Your task to perform on an android device: Open Youtube and go to "Your channel" Image 0: 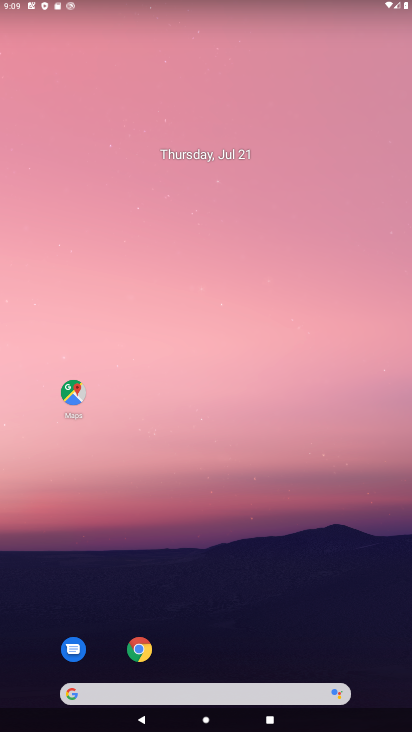
Step 0: drag from (251, 640) to (270, 290)
Your task to perform on an android device: Open Youtube and go to "Your channel" Image 1: 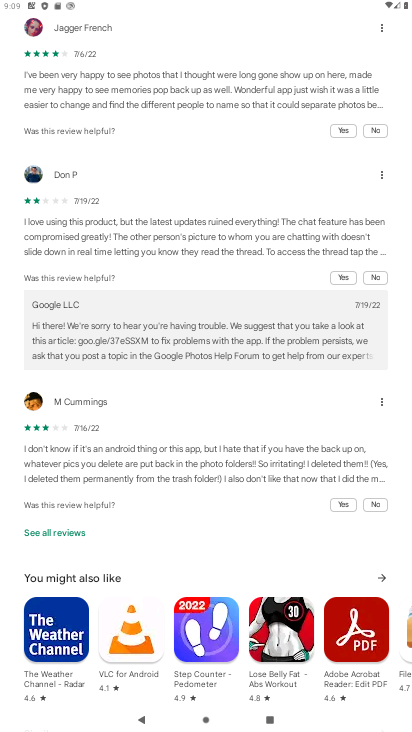
Step 1: press home button
Your task to perform on an android device: Open Youtube and go to "Your channel" Image 2: 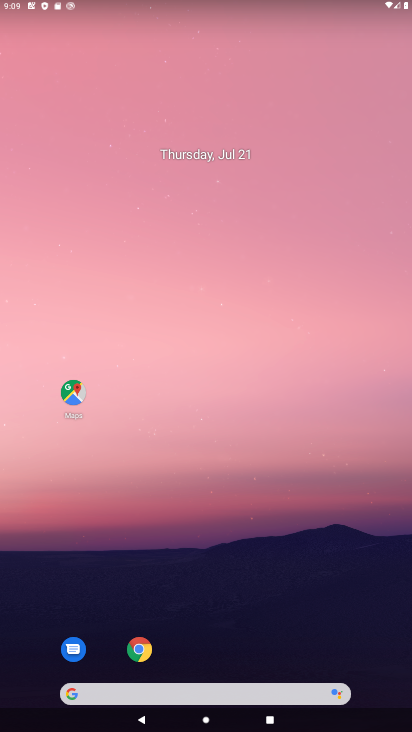
Step 2: drag from (237, 572) to (247, 241)
Your task to perform on an android device: Open Youtube and go to "Your channel" Image 3: 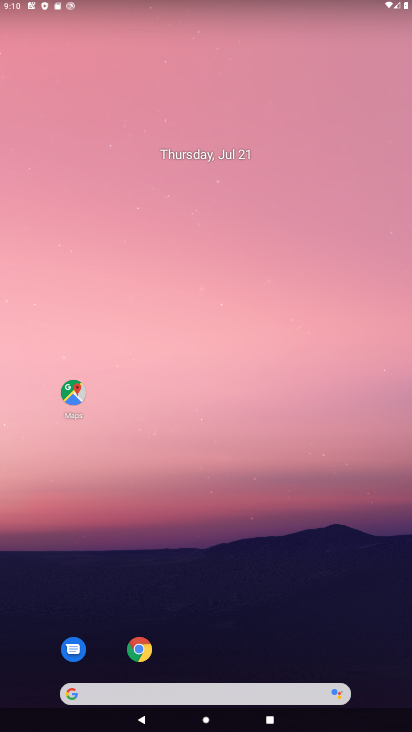
Step 3: drag from (220, 656) to (225, 284)
Your task to perform on an android device: Open Youtube and go to "Your channel" Image 4: 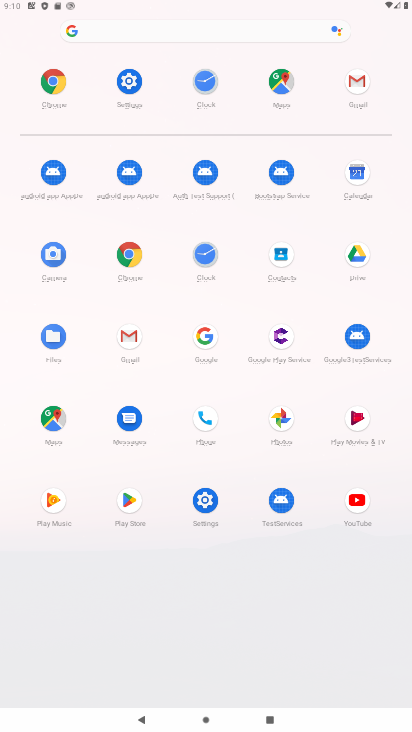
Step 4: click (349, 520)
Your task to perform on an android device: Open Youtube and go to "Your channel" Image 5: 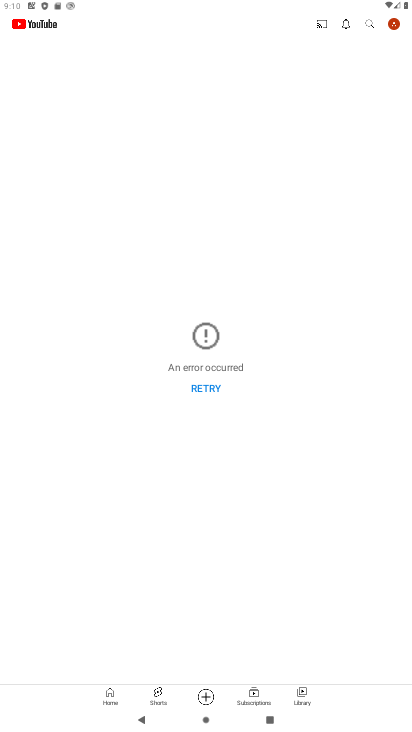
Step 5: click (196, 384)
Your task to perform on an android device: Open Youtube and go to "Your channel" Image 6: 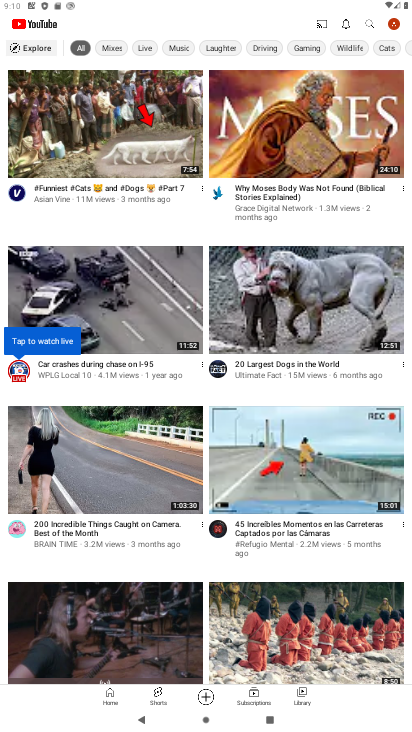
Step 6: click (395, 22)
Your task to perform on an android device: Open Youtube and go to "Your channel" Image 7: 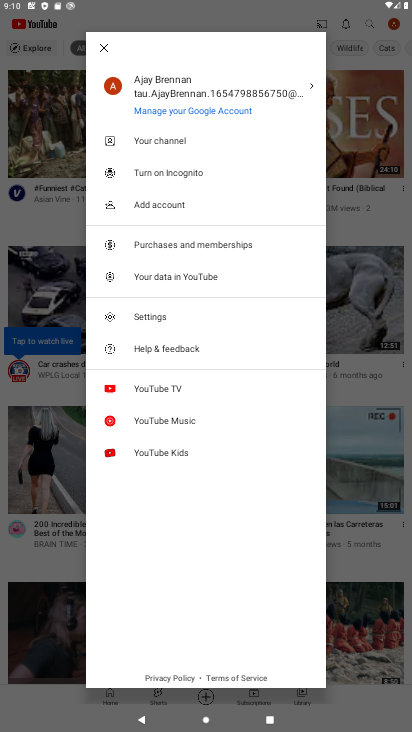
Step 7: click (160, 144)
Your task to perform on an android device: Open Youtube and go to "Your channel" Image 8: 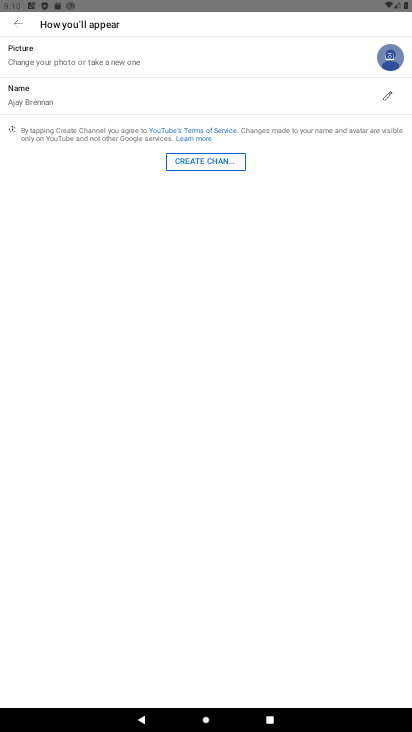
Step 8: task complete